Your task to perform on an android device: Go to settings Image 0: 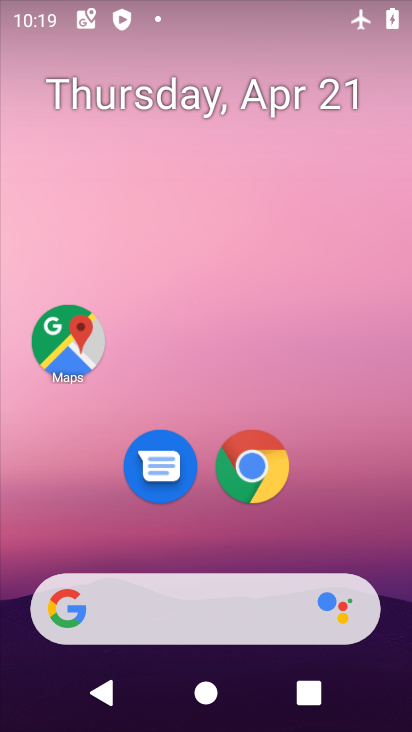
Step 0: drag from (366, 397) to (351, 100)
Your task to perform on an android device: Go to settings Image 1: 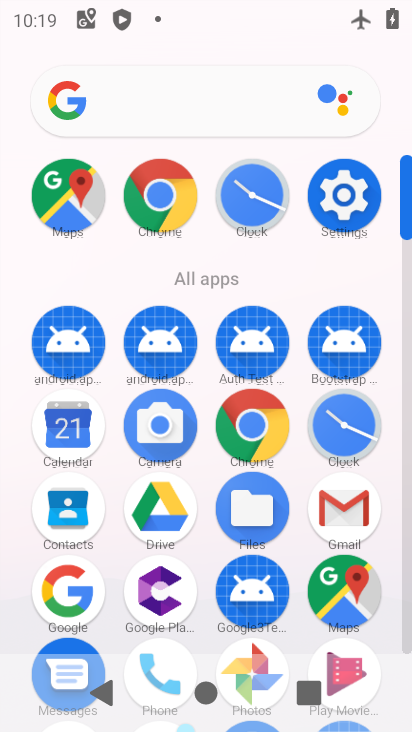
Step 1: click (345, 200)
Your task to perform on an android device: Go to settings Image 2: 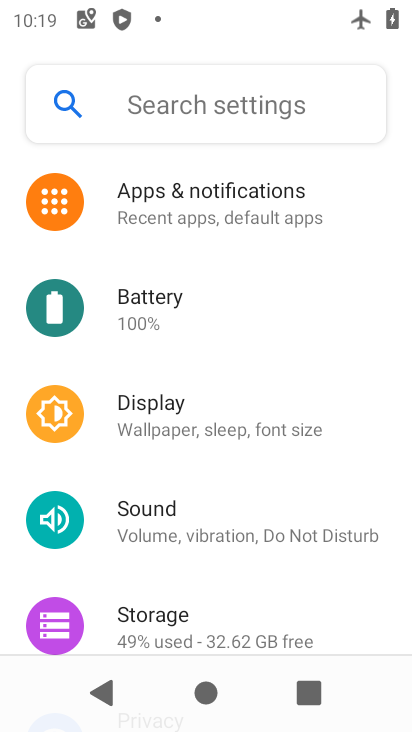
Step 2: task complete